Your task to perform on an android device: check battery use Image 0: 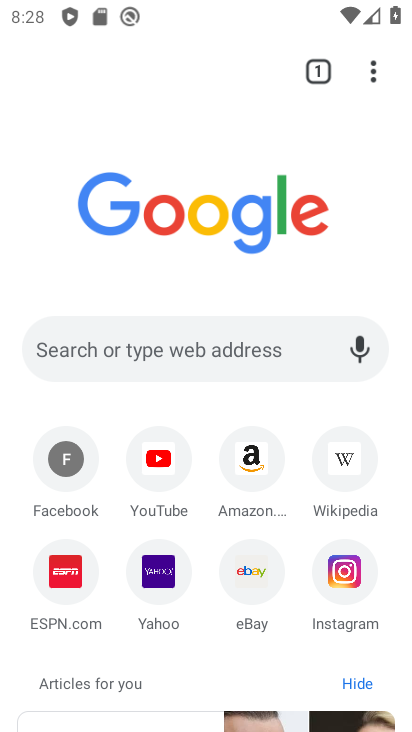
Step 0: press home button
Your task to perform on an android device: check battery use Image 1: 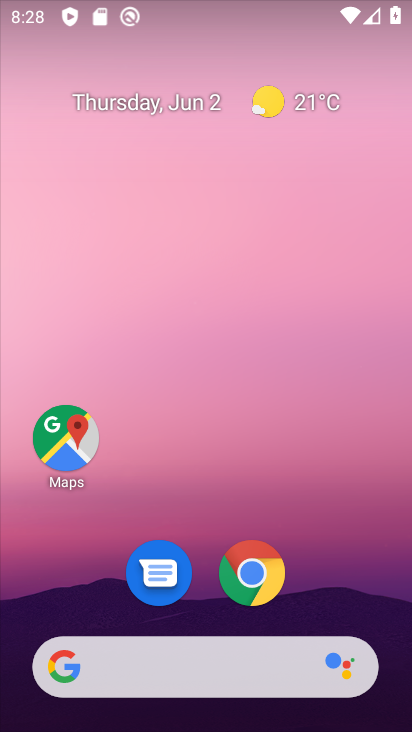
Step 1: drag from (308, 596) to (307, 44)
Your task to perform on an android device: check battery use Image 2: 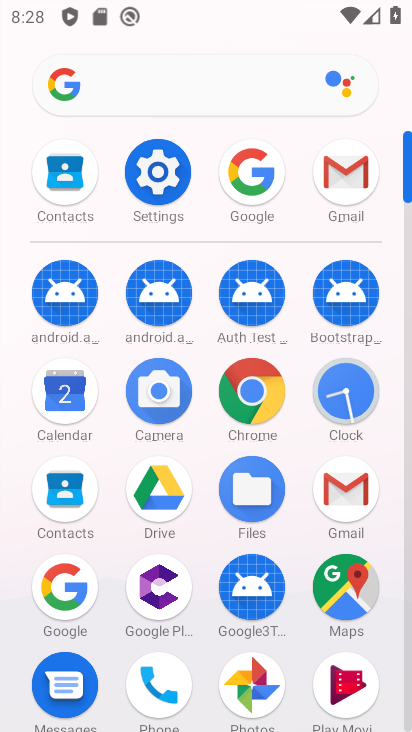
Step 2: click (158, 172)
Your task to perform on an android device: check battery use Image 3: 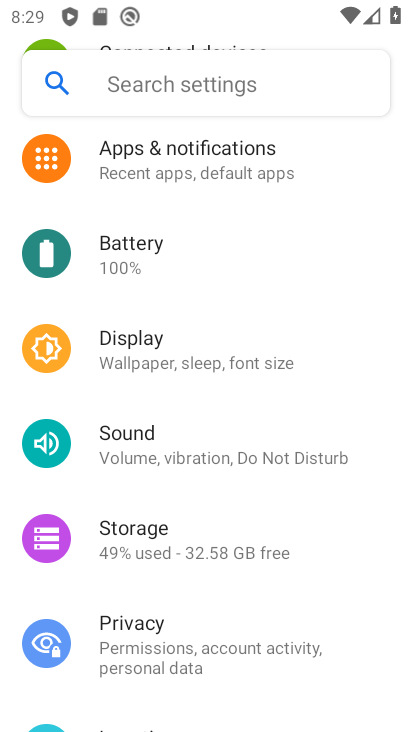
Step 3: click (143, 255)
Your task to perform on an android device: check battery use Image 4: 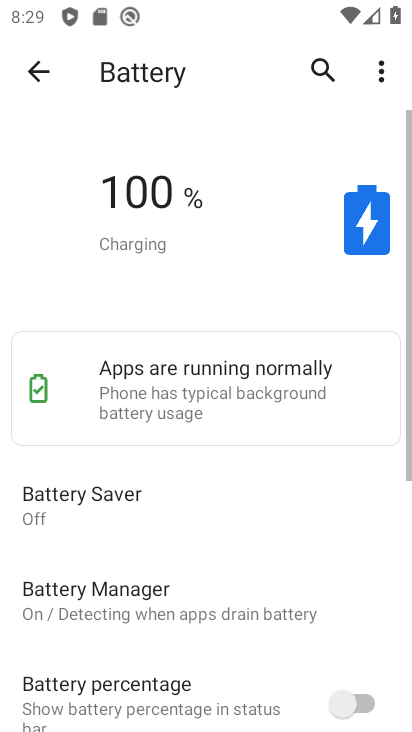
Step 4: click (371, 75)
Your task to perform on an android device: check battery use Image 5: 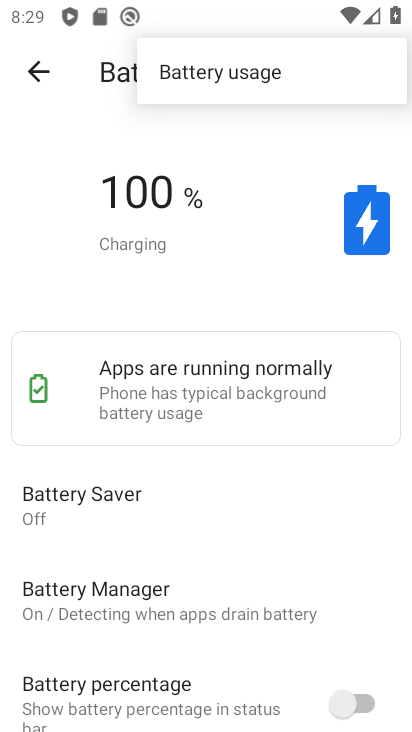
Step 5: click (206, 76)
Your task to perform on an android device: check battery use Image 6: 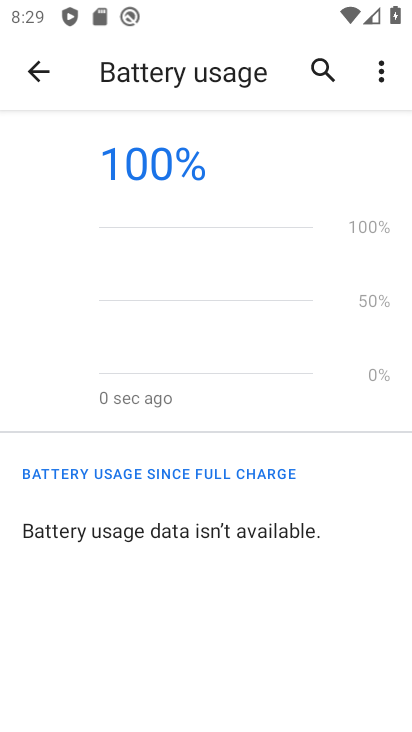
Step 6: task complete